Your task to perform on an android device: Go to wifi settings Image 0: 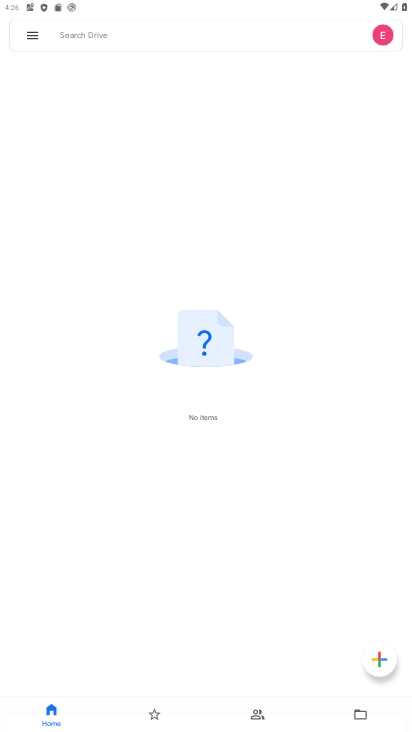
Step 0: press home button
Your task to perform on an android device: Go to wifi settings Image 1: 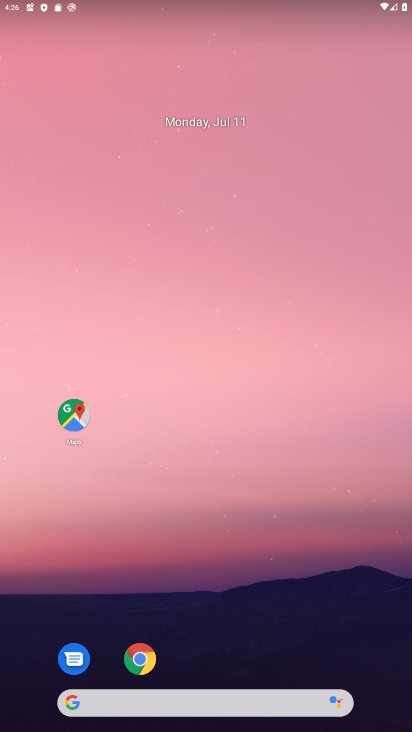
Step 1: drag from (172, 420) to (175, 130)
Your task to perform on an android device: Go to wifi settings Image 2: 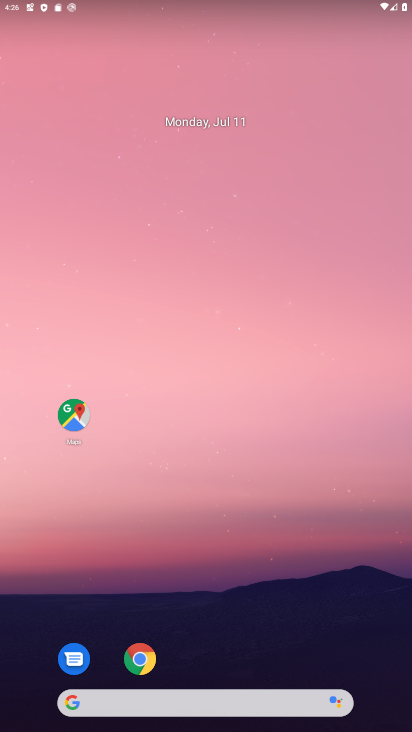
Step 2: drag from (188, 491) to (209, 225)
Your task to perform on an android device: Go to wifi settings Image 3: 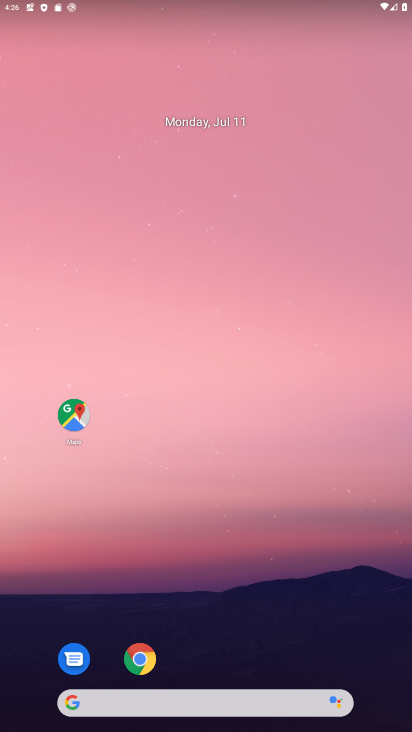
Step 3: drag from (200, 594) to (218, 52)
Your task to perform on an android device: Go to wifi settings Image 4: 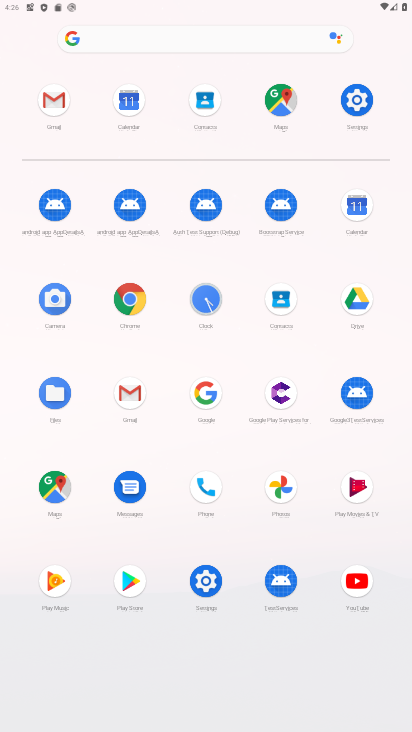
Step 4: click (351, 115)
Your task to perform on an android device: Go to wifi settings Image 5: 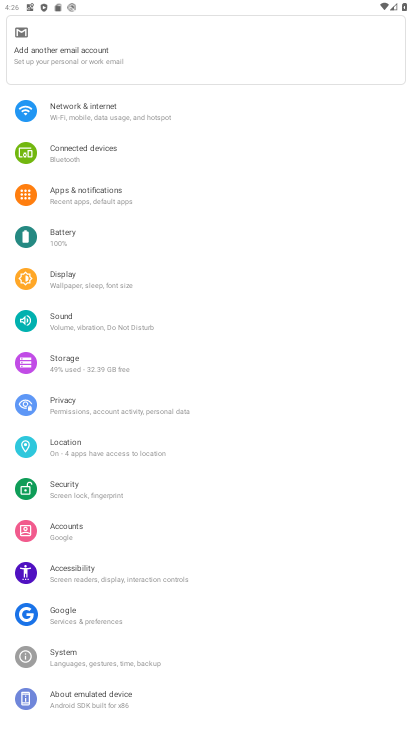
Step 5: click (135, 113)
Your task to perform on an android device: Go to wifi settings Image 6: 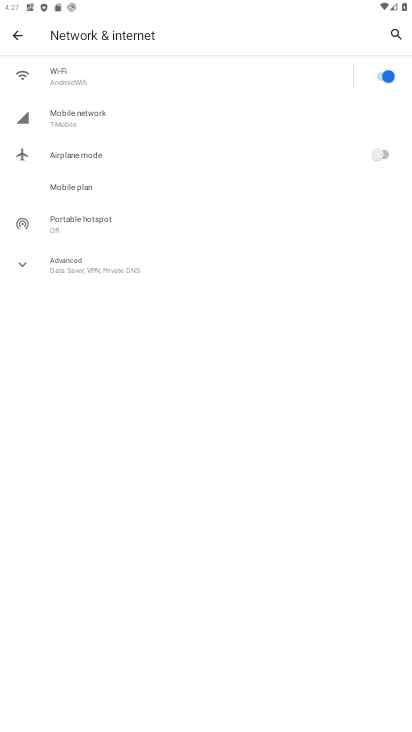
Step 6: click (131, 77)
Your task to perform on an android device: Go to wifi settings Image 7: 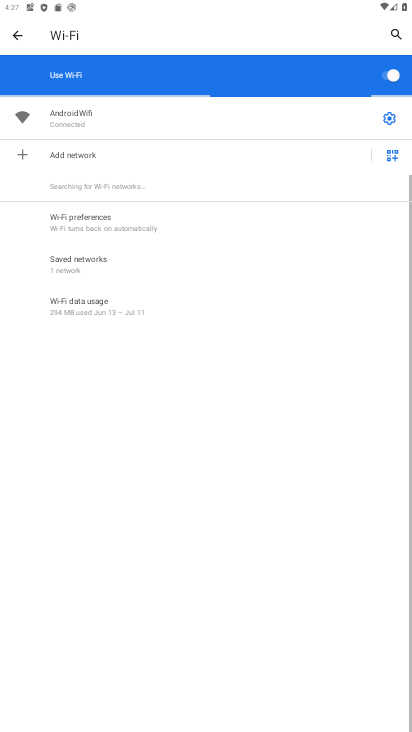
Step 7: task complete